Your task to perform on an android device: check out phone information Image 0: 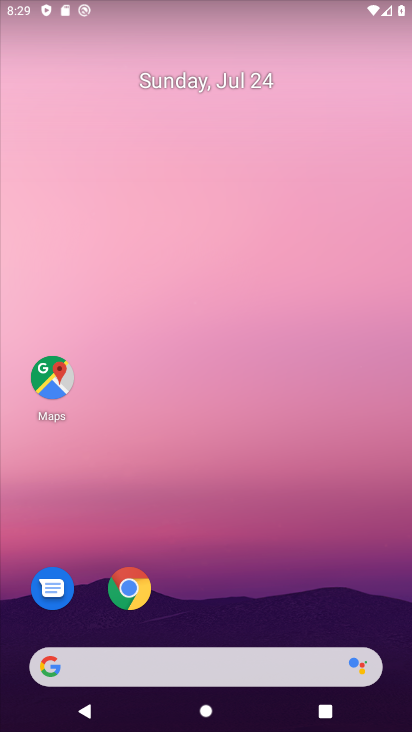
Step 0: drag from (265, 634) to (220, 76)
Your task to perform on an android device: check out phone information Image 1: 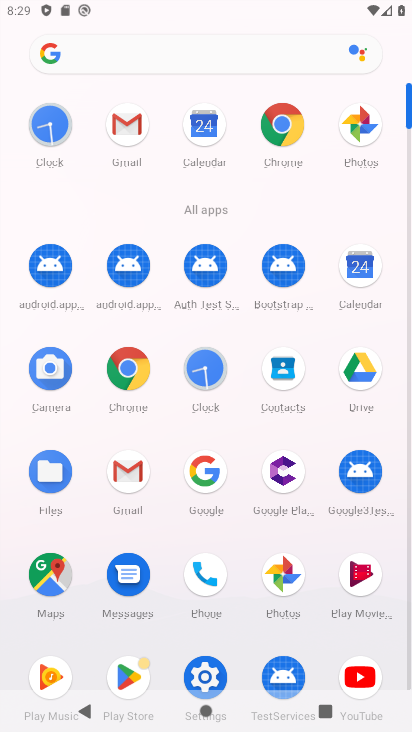
Step 1: click (211, 672)
Your task to perform on an android device: check out phone information Image 2: 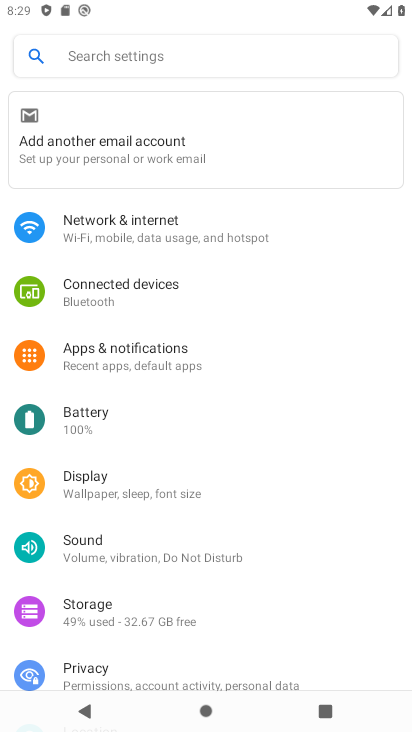
Step 2: drag from (129, 594) to (78, 113)
Your task to perform on an android device: check out phone information Image 3: 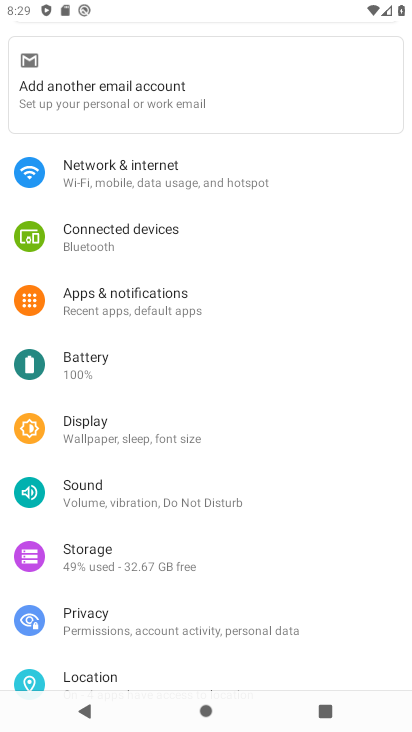
Step 3: drag from (96, 659) to (77, 235)
Your task to perform on an android device: check out phone information Image 4: 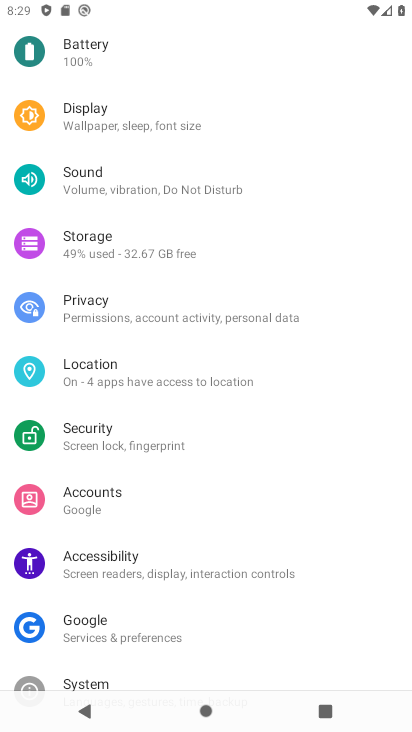
Step 4: drag from (97, 682) to (70, 187)
Your task to perform on an android device: check out phone information Image 5: 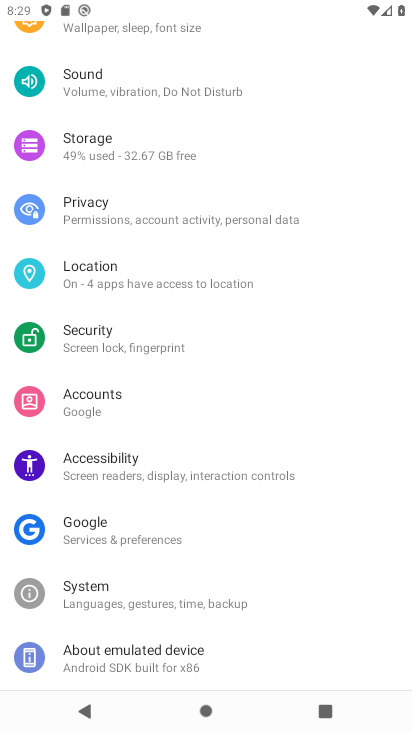
Step 5: click (121, 662)
Your task to perform on an android device: check out phone information Image 6: 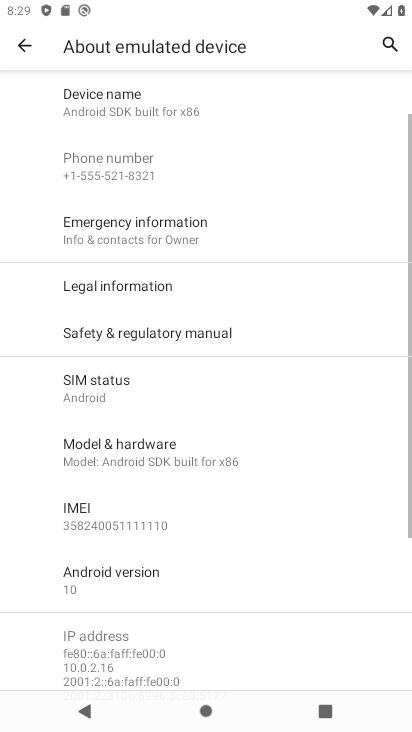
Step 6: task complete